Your task to perform on an android device: change the clock style Image 0: 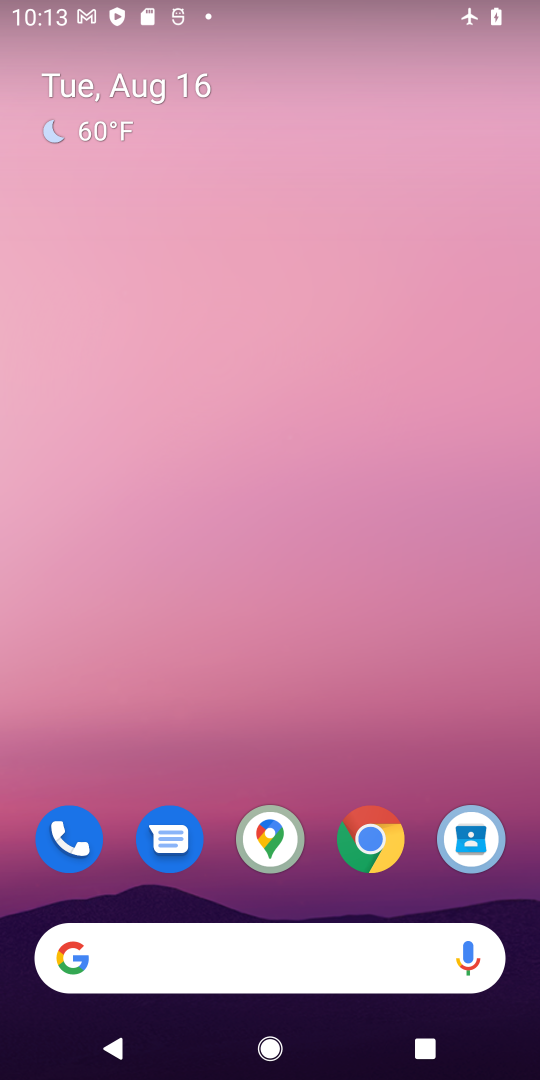
Step 0: drag from (243, 886) to (280, 16)
Your task to perform on an android device: change the clock style Image 1: 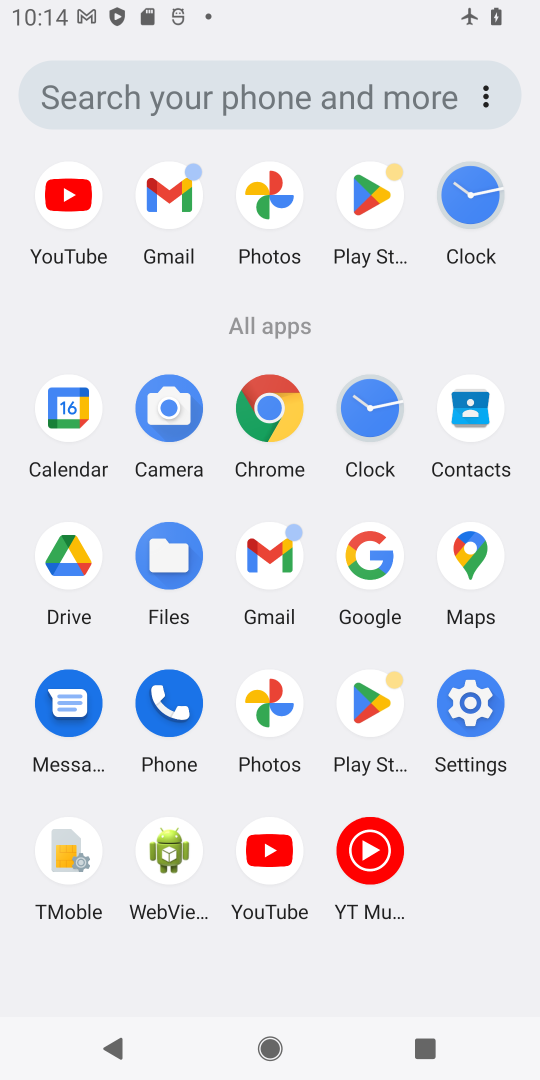
Step 1: click (379, 428)
Your task to perform on an android device: change the clock style Image 2: 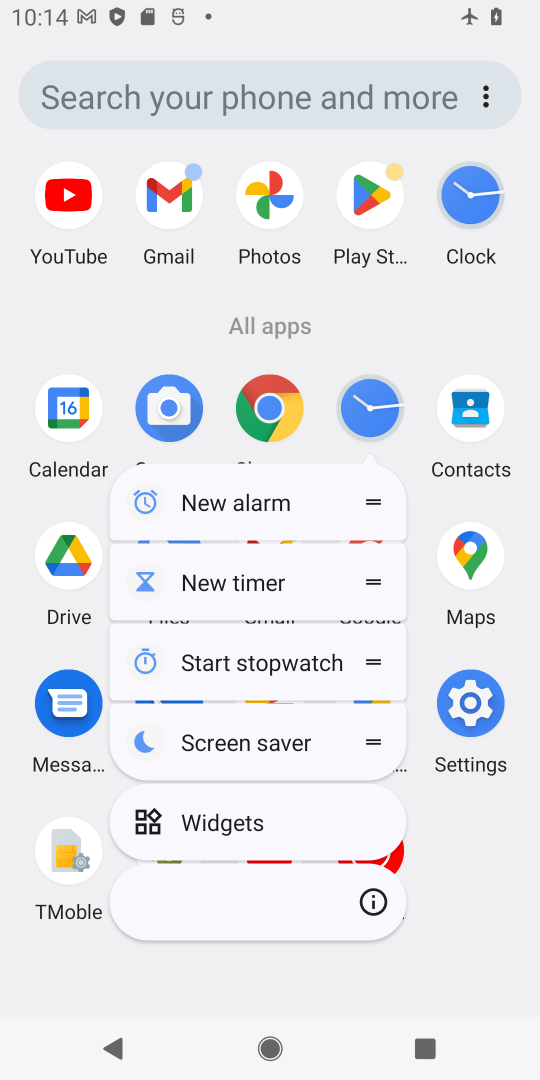
Step 2: click (378, 423)
Your task to perform on an android device: change the clock style Image 3: 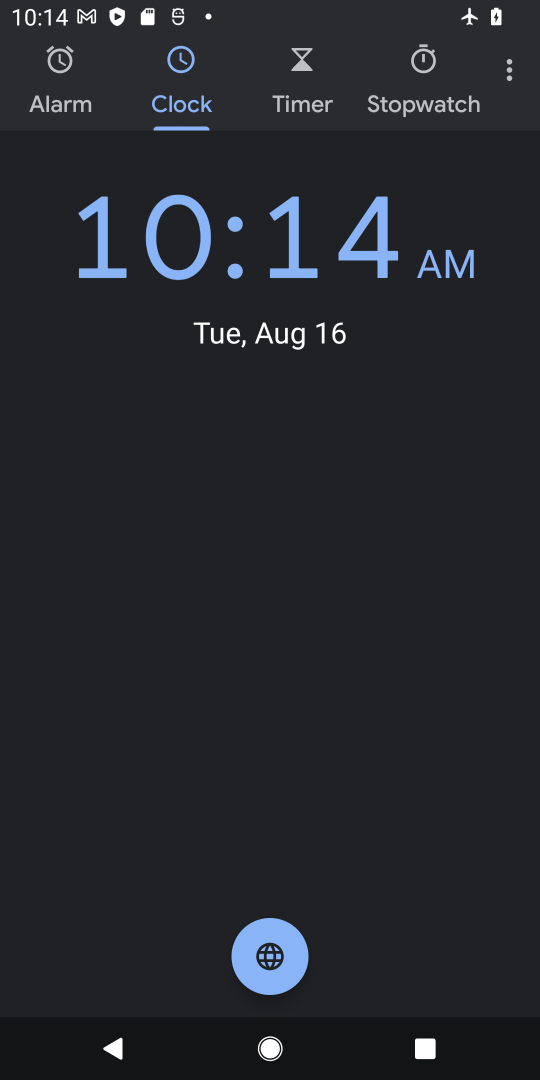
Step 3: click (501, 73)
Your task to perform on an android device: change the clock style Image 4: 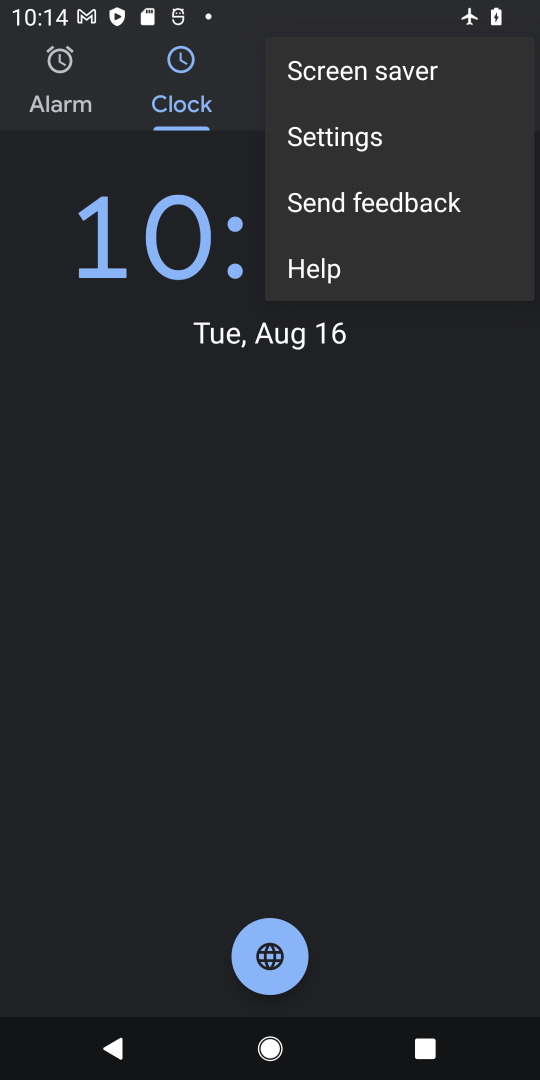
Step 4: click (363, 131)
Your task to perform on an android device: change the clock style Image 5: 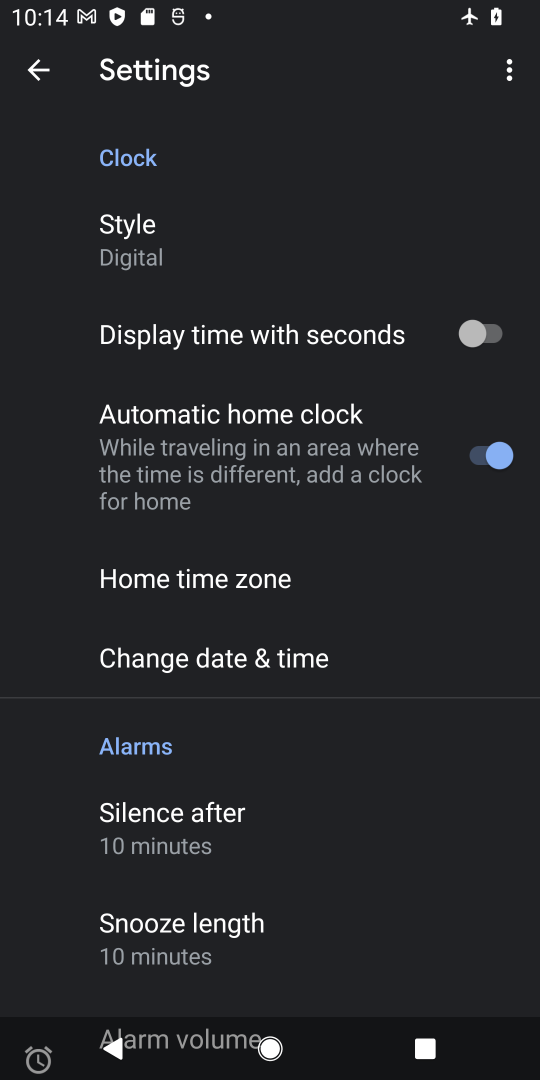
Step 5: click (148, 257)
Your task to perform on an android device: change the clock style Image 6: 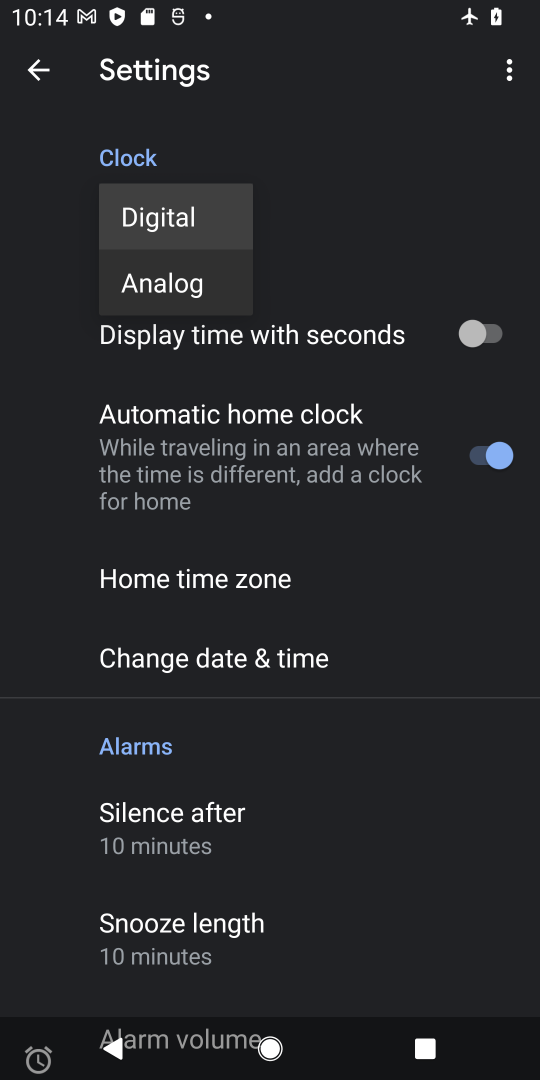
Step 6: click (171, 282)
Your task to perform on an android device: change the clock style Image 7: 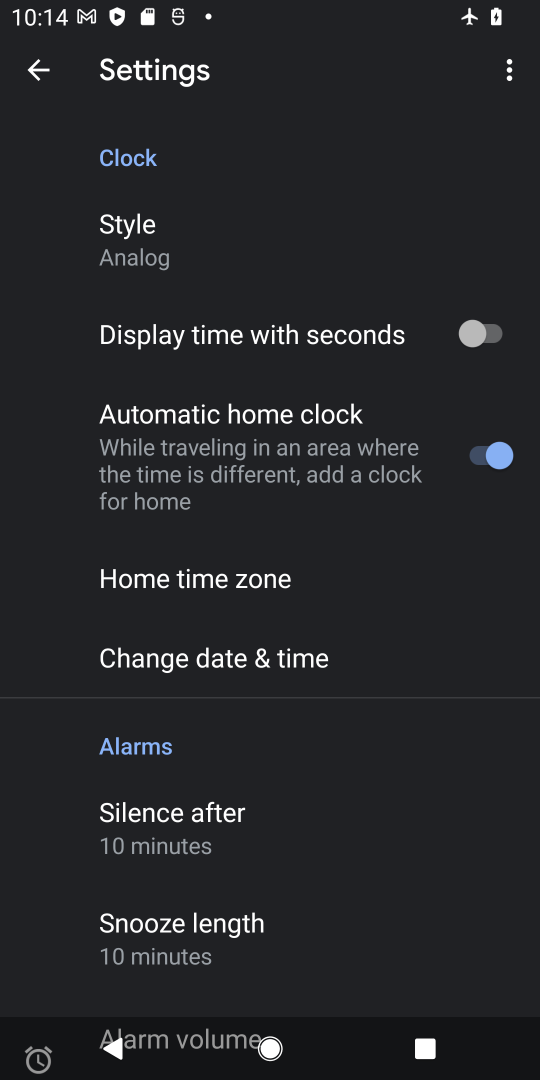
Step 7: task complete